Your task to perform on an android device: all mails in gmail Image 0: 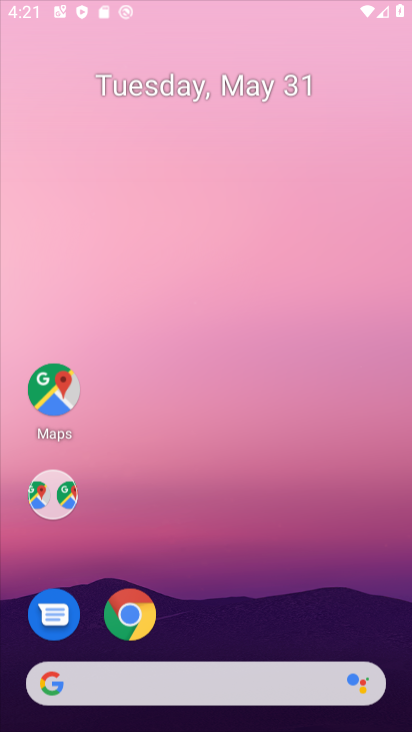
Step 0: drag from (256, 680) to (108, 107)
Your task to perform on an android device: all mails in gmail Image 1: 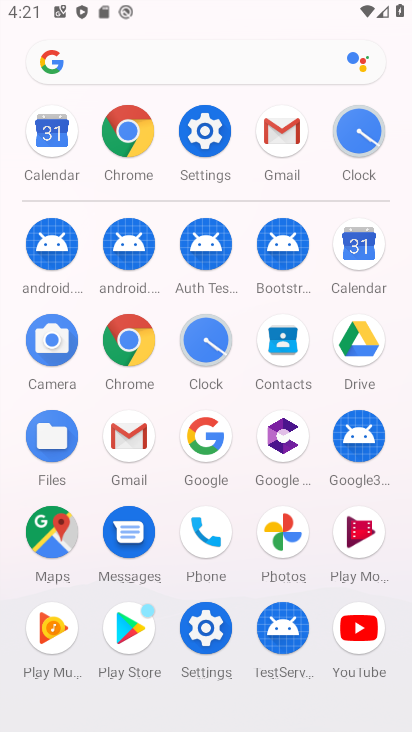
Step 1: click (115, 430)
Your task to perform on an android device: all mails in gmail Image 2: 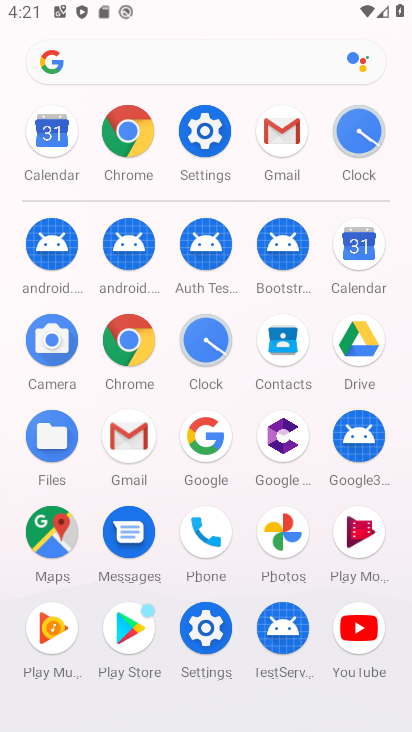
Step 2: click (118, 432)
Your task to perform on an android device: all mails in gmail Image 3: 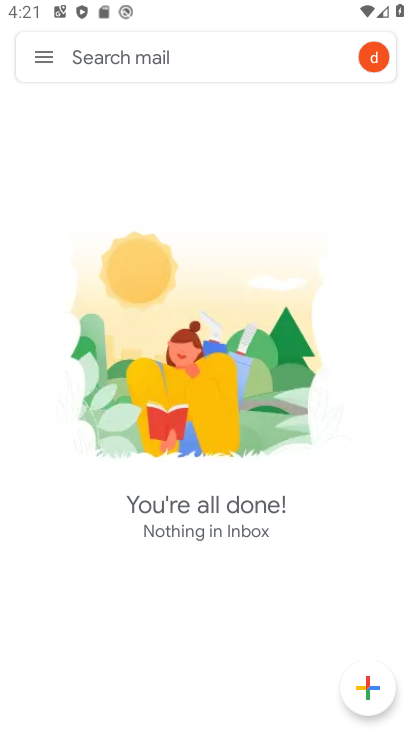
Step 3: click (37, 56)
Your task to perform on an android device: all mails in gmail Image 4: 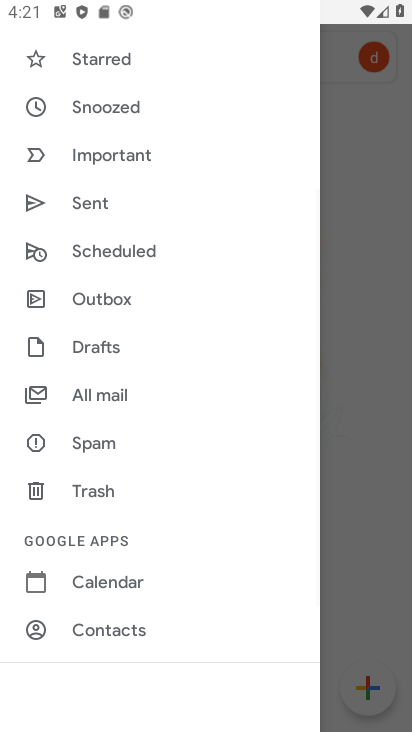
Step 4: click (95, 400)
Your task to perform on an android device: all mails in gmail Image 5: 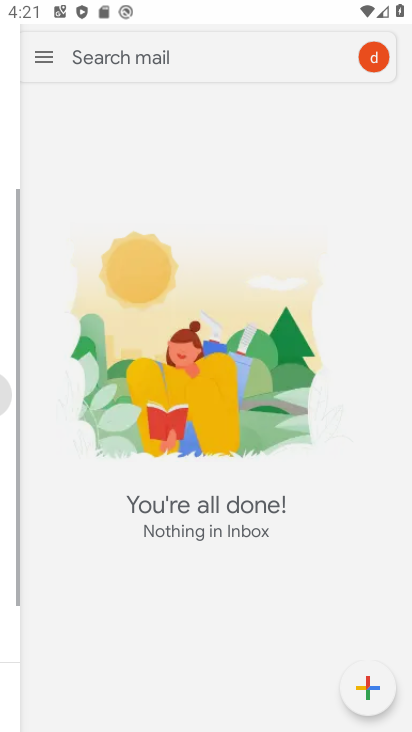
Step 5: click (96, 397)
Your task to perform on an android device: all mails in gmail Image 6: 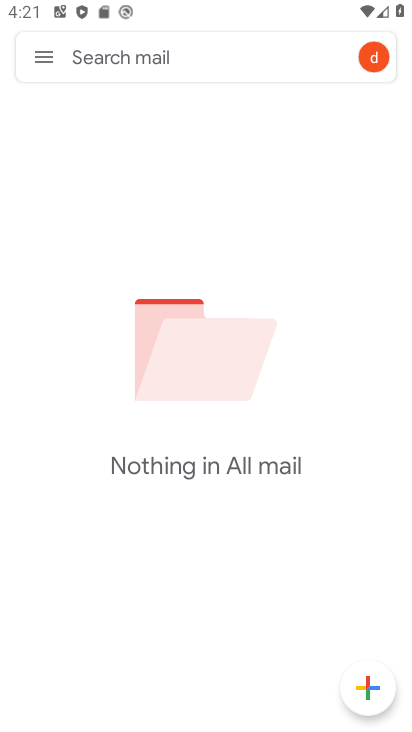
Step 6: task complete